Your task to perform on an android device: Open calendar and show me the first week of next month Image 0: 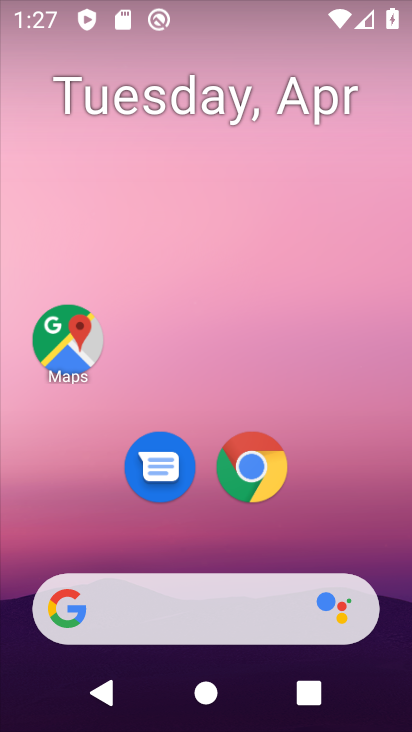
Step 0: drag from (391, 539) to (355, 139)
Your task to perform on an android device: Open calendar and show me the first week of next month Image 1: 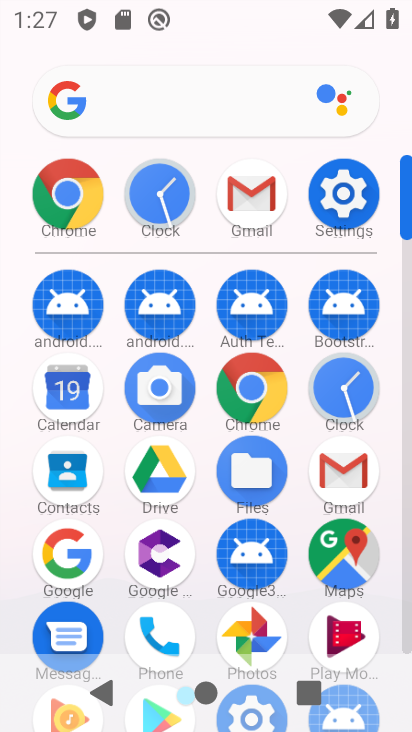
Step 1: click (75, 405)
Your task to perform on an android device: Open calendar and show me the first week of next month Image 2: 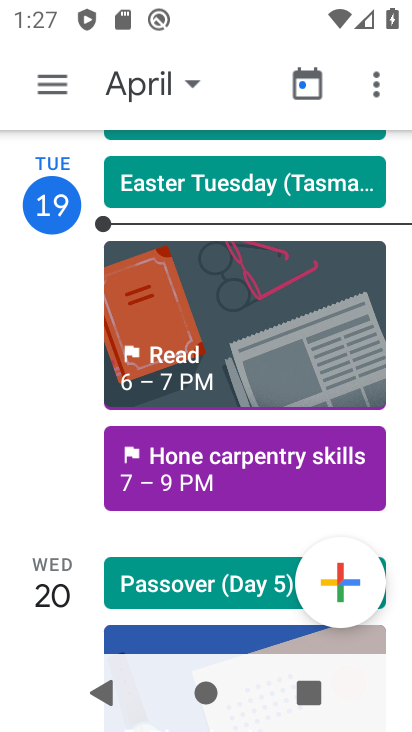
Step 2: click (195, 82)
Your task to perform on an android device: Open calendar and show me the first week of next month Image 3: 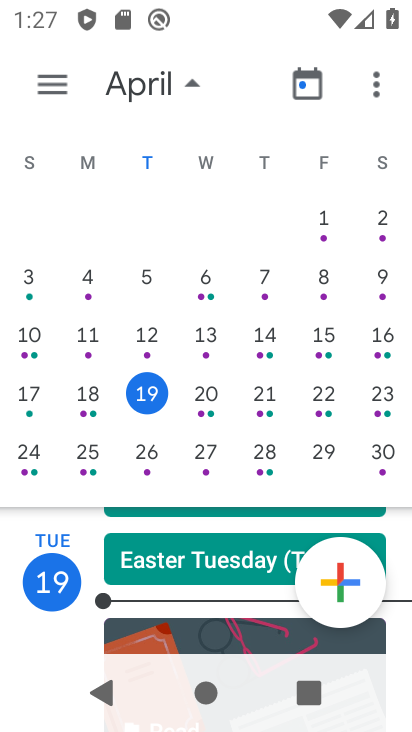
Step 3: drag from (397, 314) to (12, 321)
Your task to perform on an android device: Open calendar and show me the first week of next month Image 4: 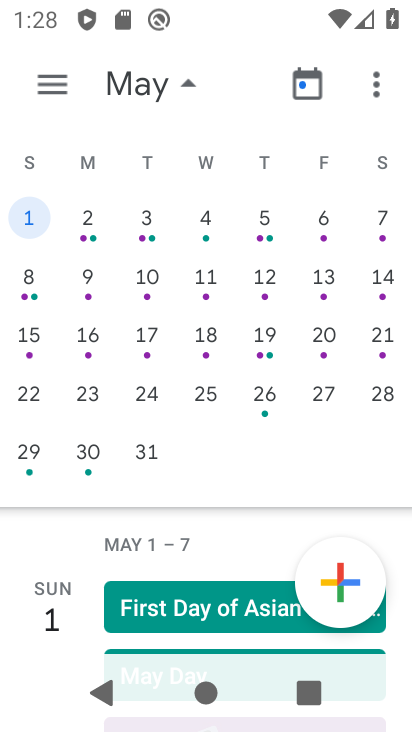
Step 4: click (142, 218)
Your task to perform on an android device: Open calendar and show me the first week of next month Image 5: 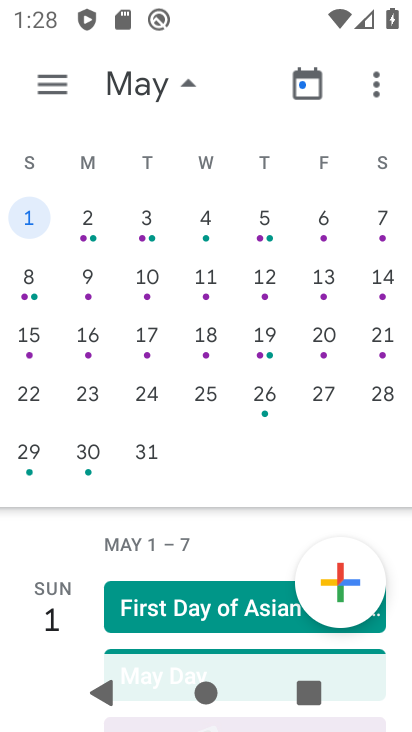
Step 5: click (151, 215)
Your task to perform on an android device: Open calendar and show me the first week of next month Image 6: 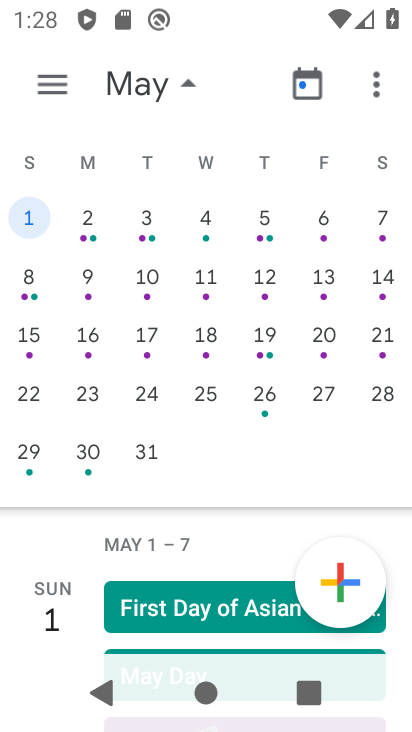
Step 6: click (144, 216)
Your task to perform on an android device: Open calendar and show me the first week of next month Image 7: 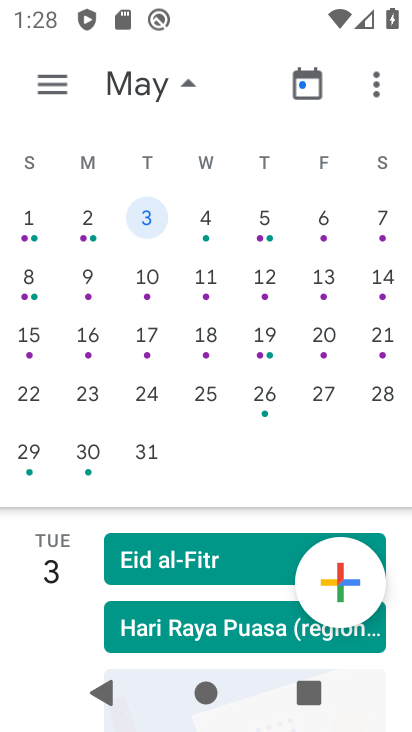
Step 7: task complete